Your task to perform on an android device: install app "Spotify: Music and Podcasts" Image 0: 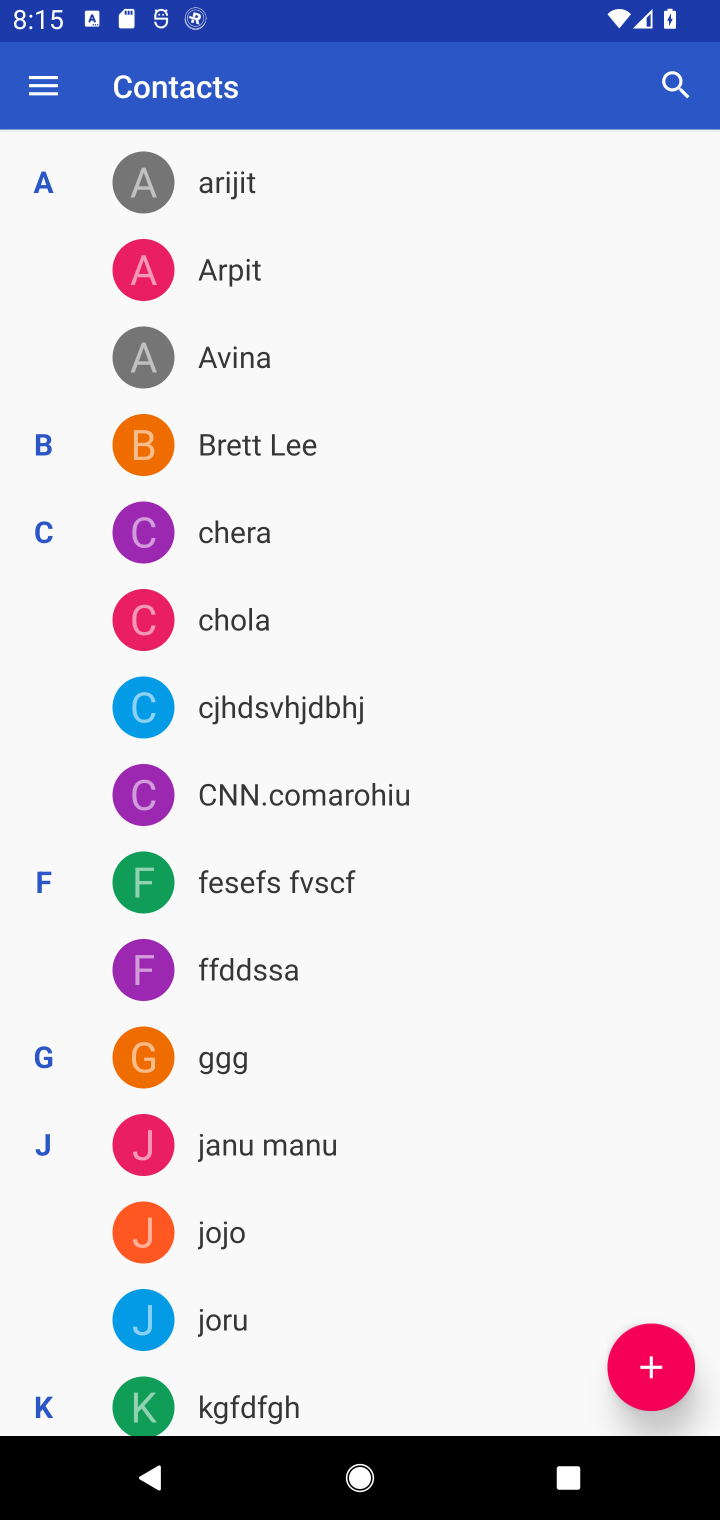
Step 0: press home button
Your task to perform on an android device: install app "Spotify: Music and Podcasts" Image 1: 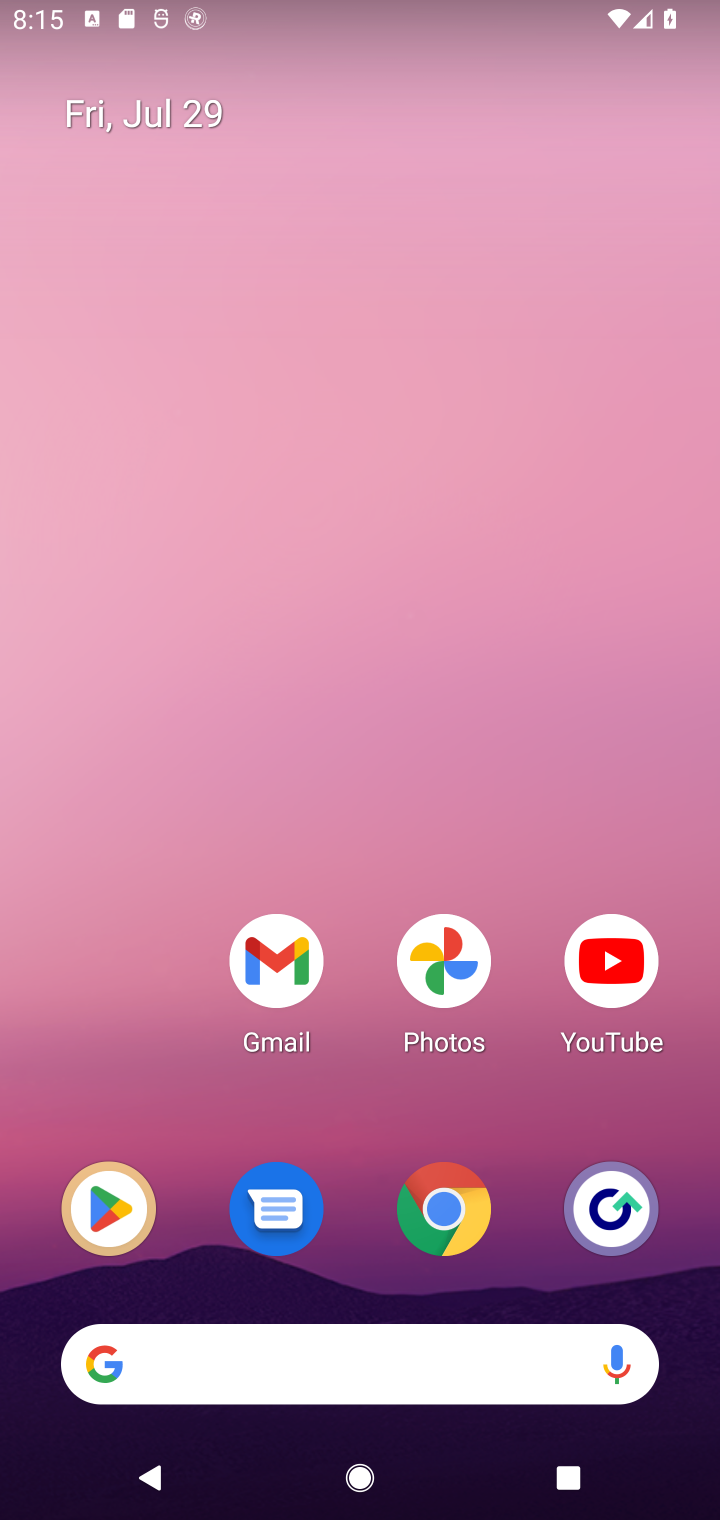
Step 1: click (96, 1212)
Your task to perform on an android device: install app "Spotify: Music and Podcasts" Image 2: 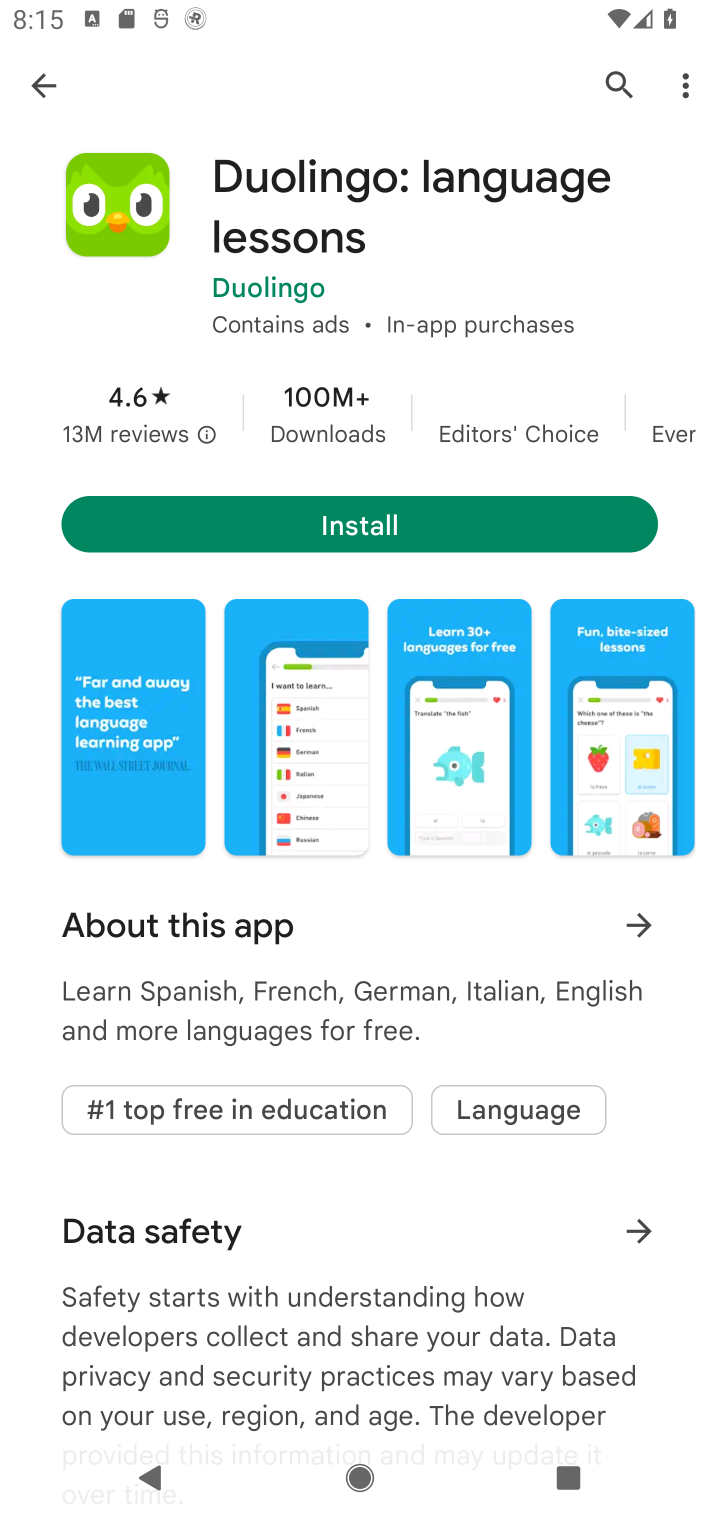
Step 2: click (610, 77)
Your task to perform on an android device: install app "Spotify: Music and Podcasts" Image 3: 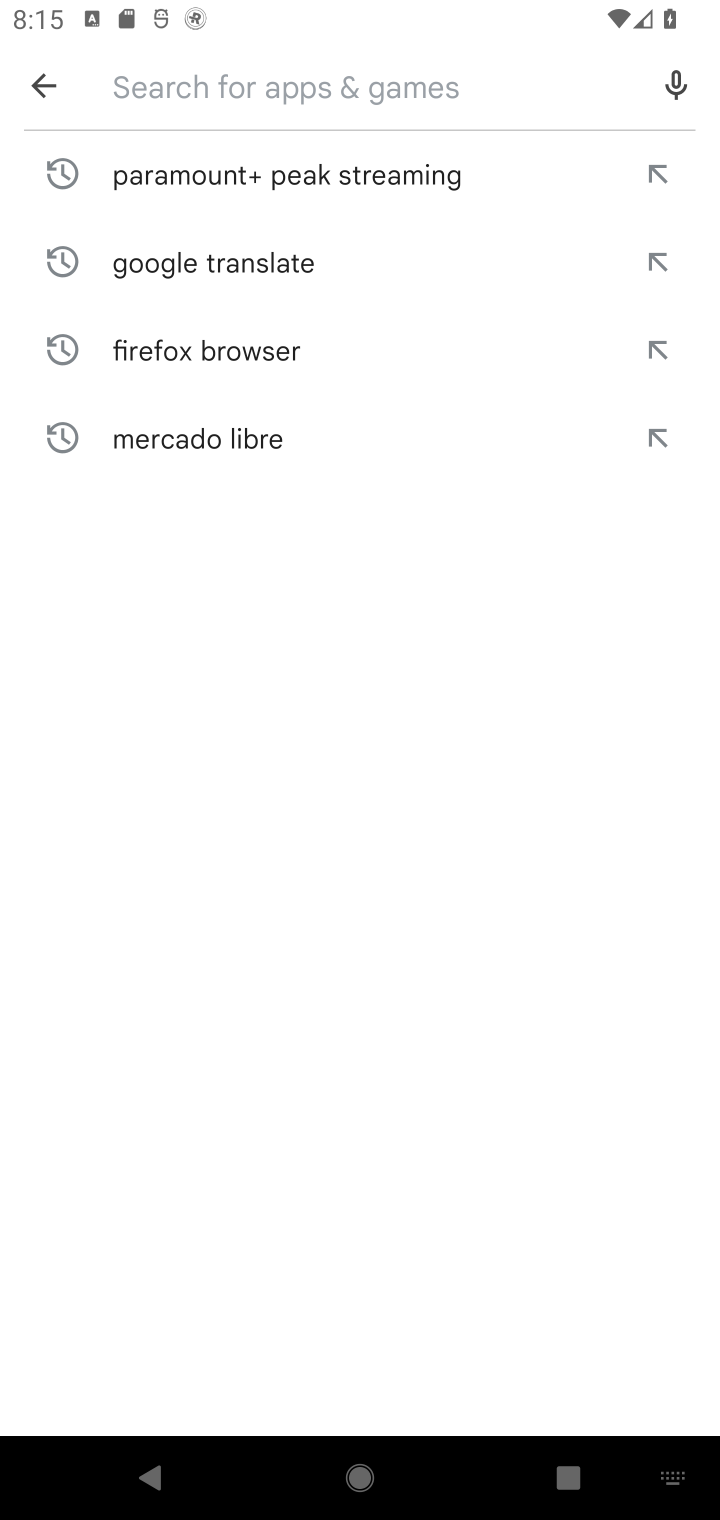
Step 3: type "Spotify: Music and Podcasts"
Your task to perform on an android device: install app "Spotify: Music and Podcasts" Image 4: 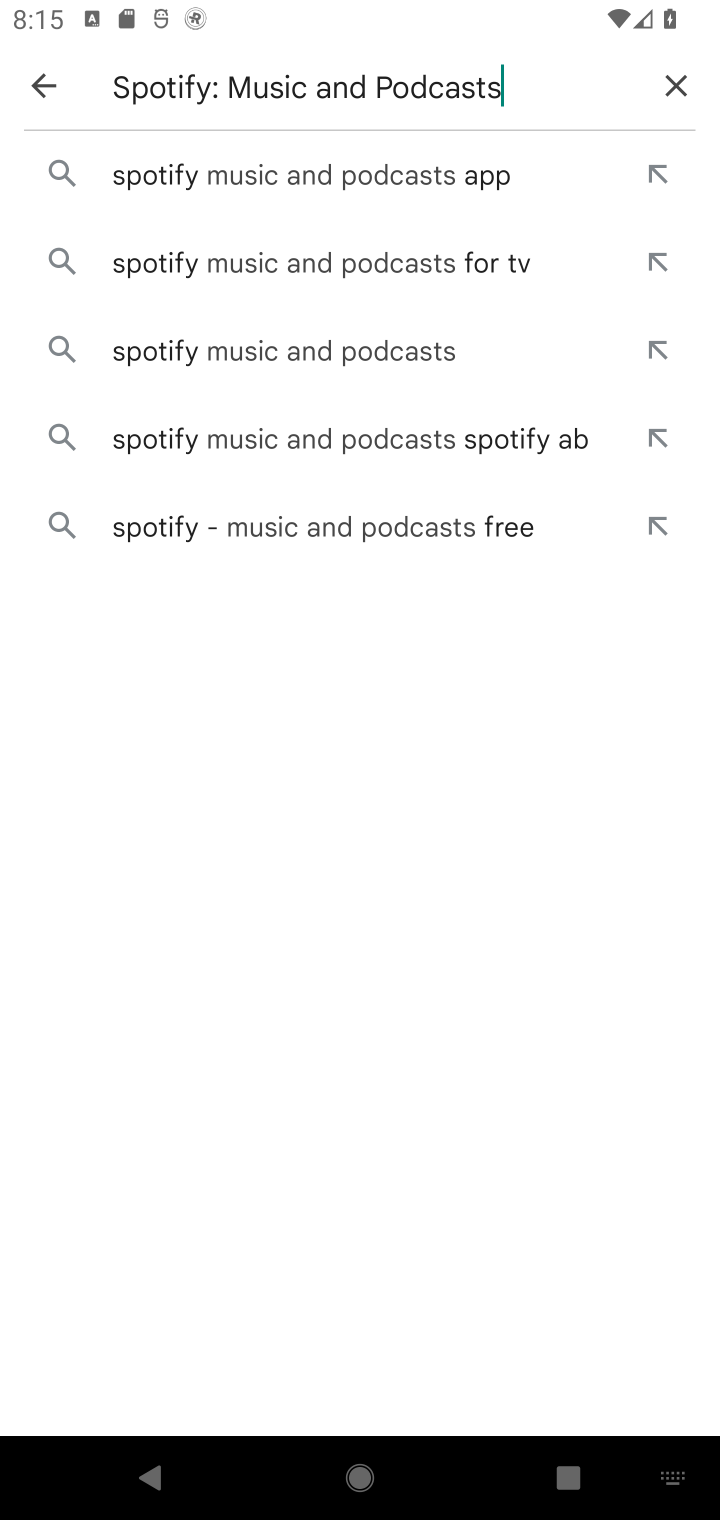
Step 4: click (255, 197)
Your task to perform on an android device: install app "Spotify: Music and Podcasts" Image 5: 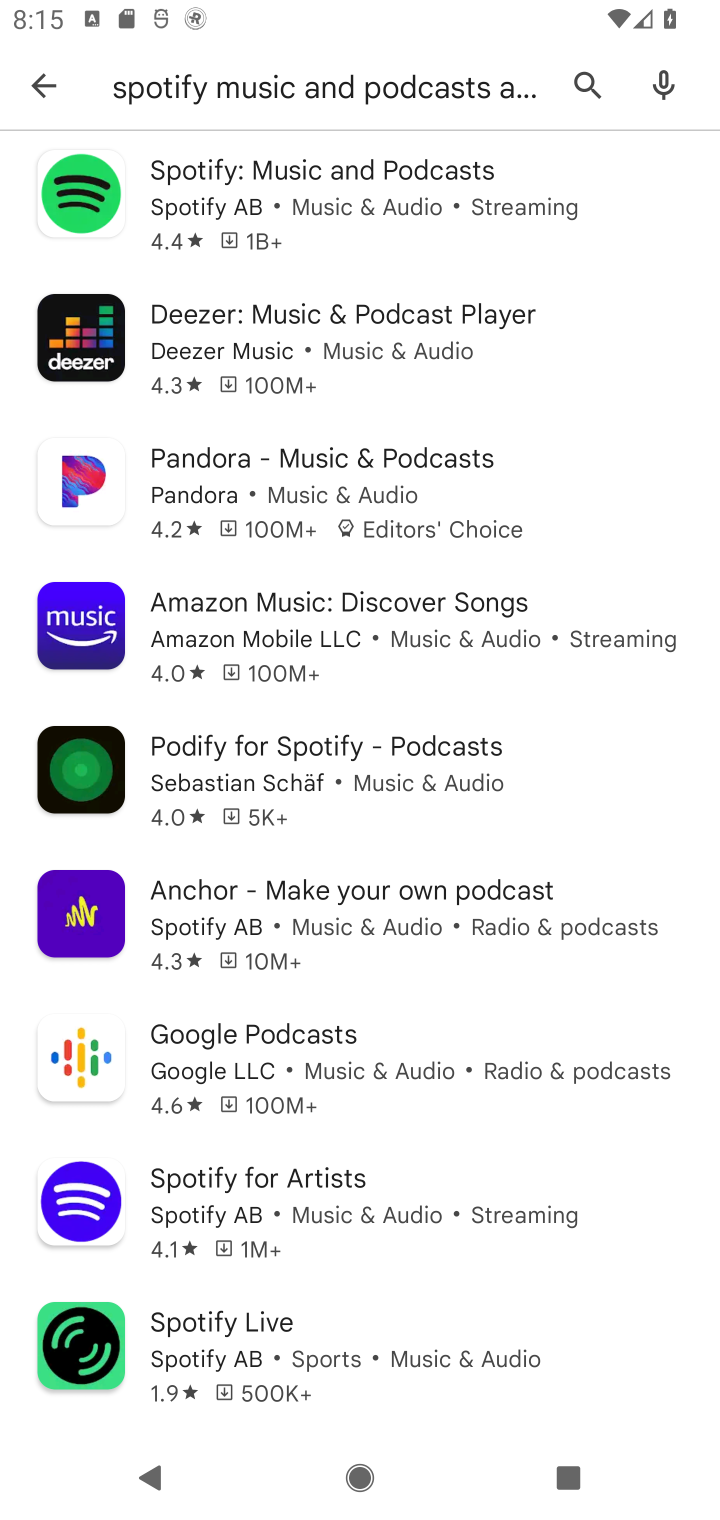
Step 5: click (209, 211)
Your task to perform on an android device: install app "Spotify: Music and Podcasts" Image 6: 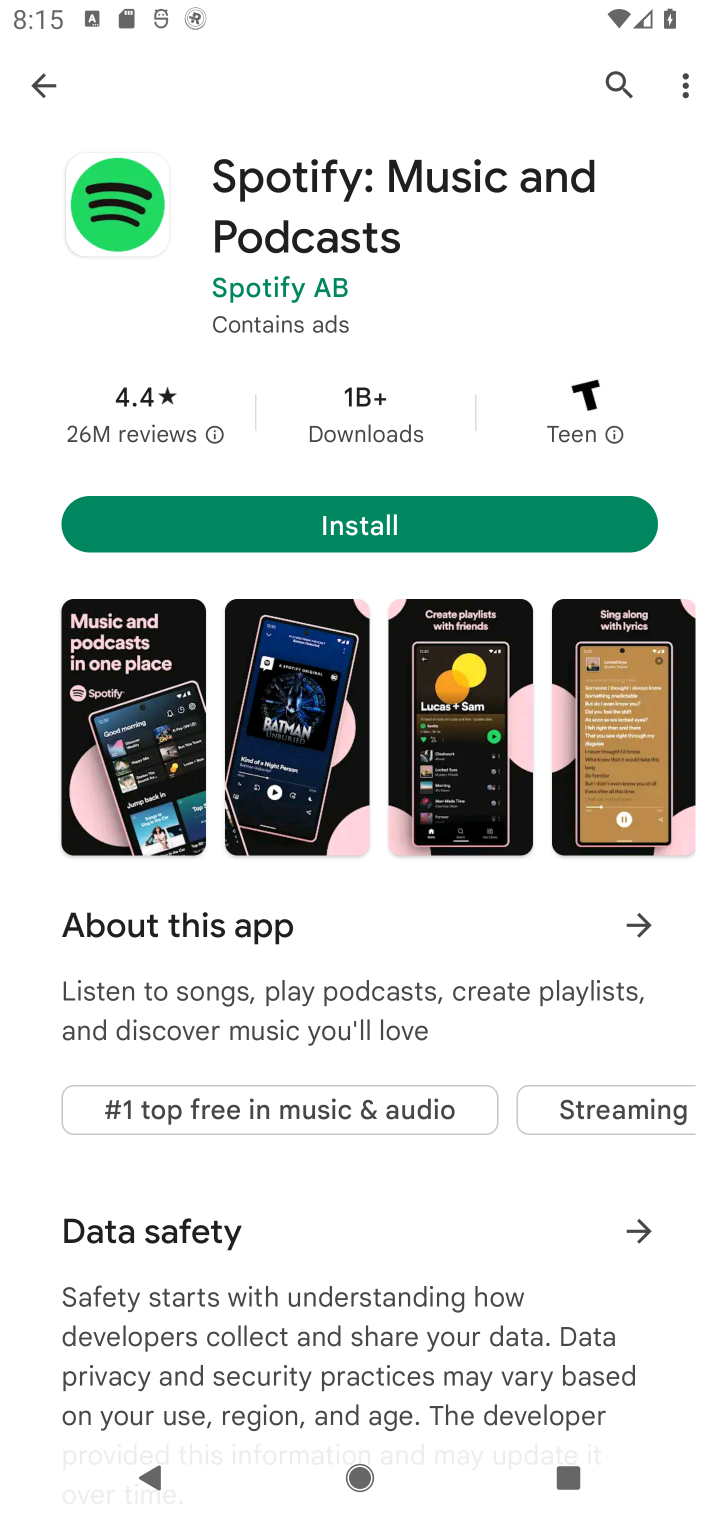
Step 6: click (281, 528)
Your task to perform on an android device: install app "Spotify: Music and Podcasts" Image 7: 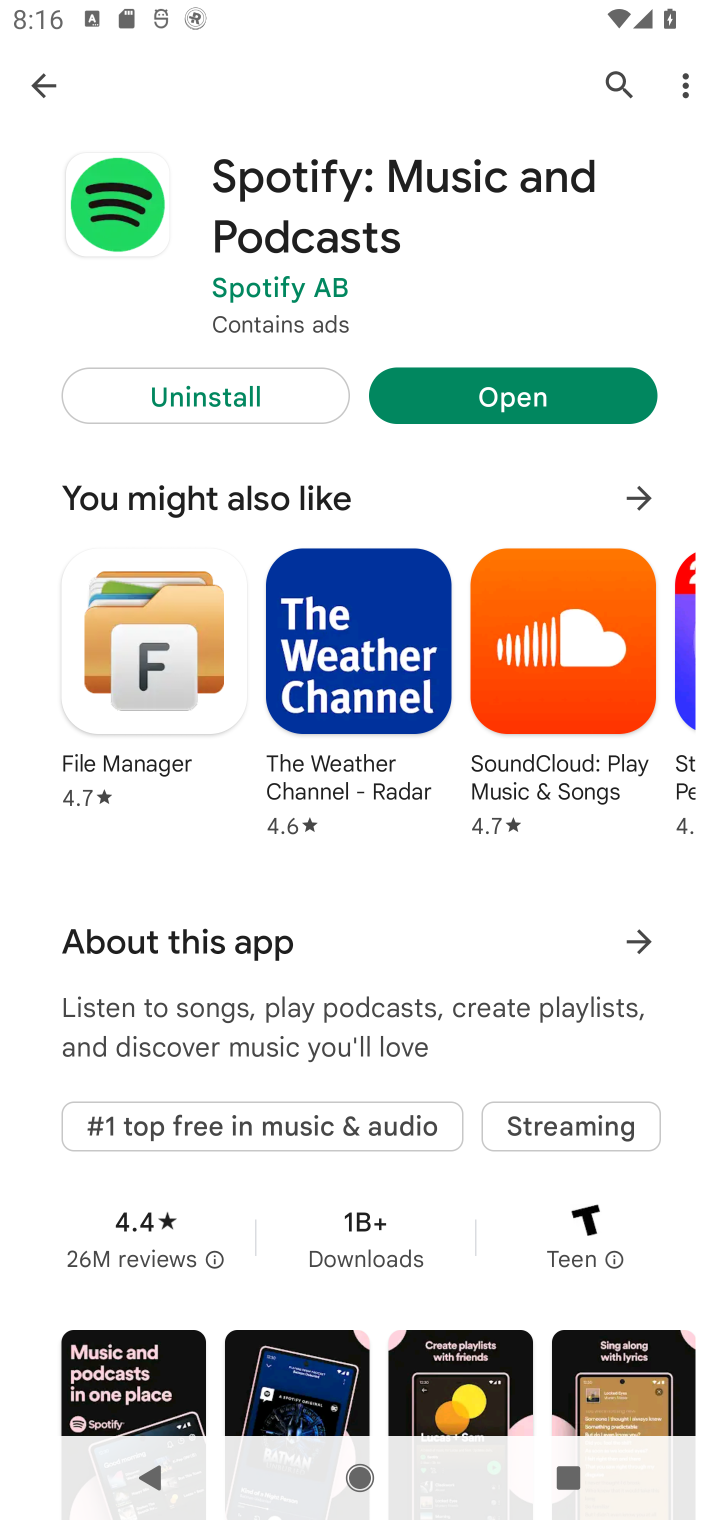
Step 7: task complete